Your task to perform on an android device: Go to CNN.com Image 0: 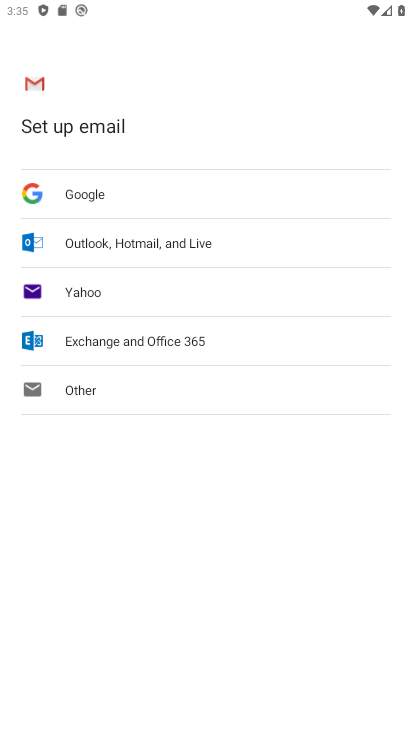
Step 0: press home button
Your task to perform on an android device: Go to CNN.com Image 1: 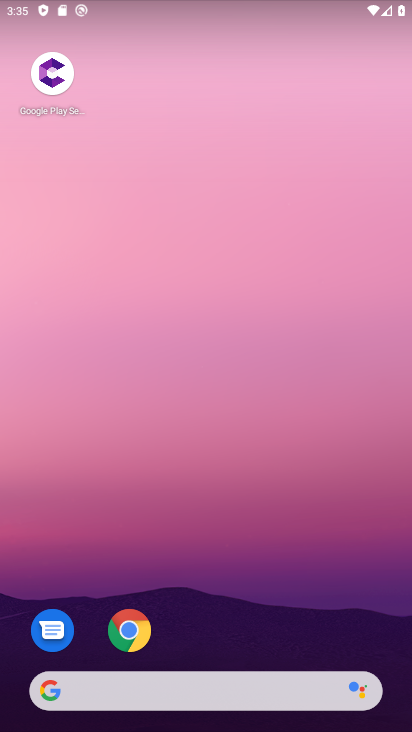
Step 1: drag from (329, 589) to (335, 92)
Your task to perform on an android device: Go to CNN.com Image 2: 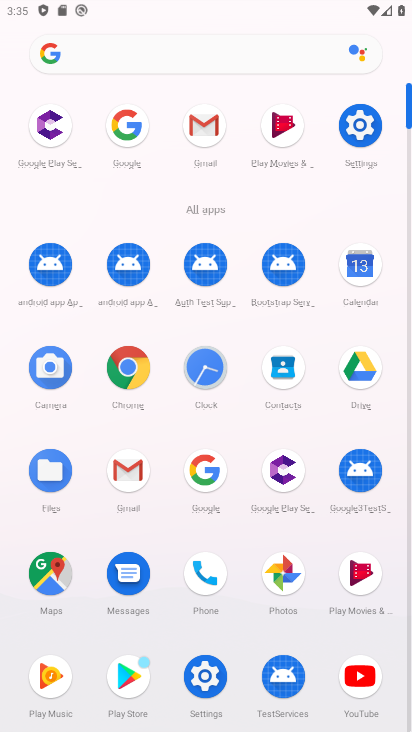
Step 2: click (127, 365)
Your task to perform on an android device: Go to CNN.com Image 3: 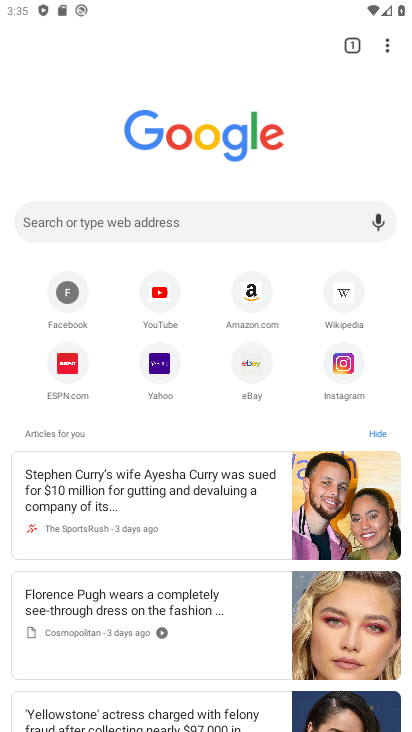
Step 3: click (170, 212)
Your task to perform on an android device: Go to CNN.com Image 4: 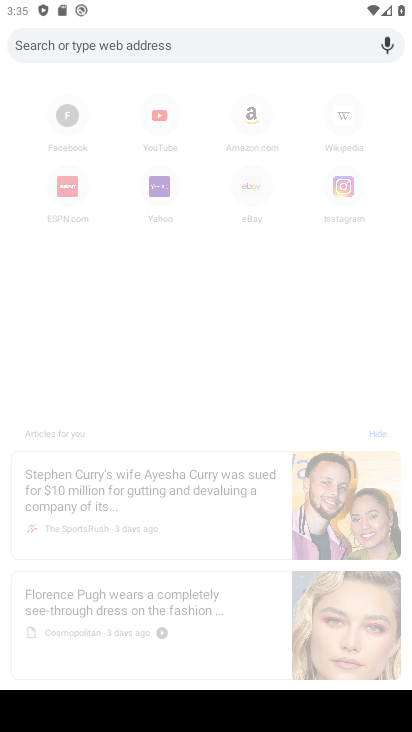
Step 4: type "CNN.com"
Your task to perform on an android device: Go to CNN.com Image 5: 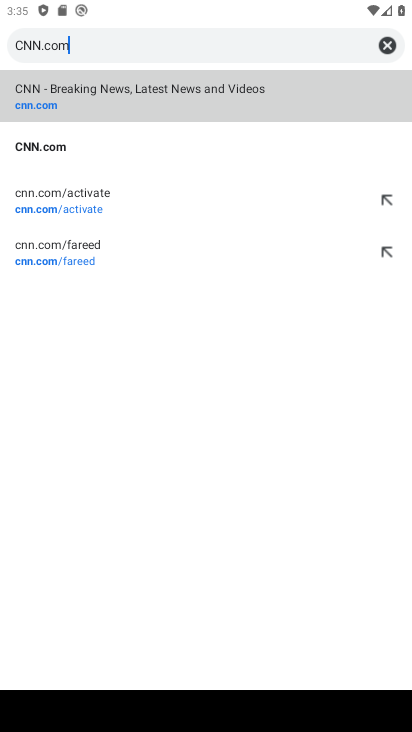
Step 5: click (54, 146)
Your task to perform on an android device: Go to CNN.com Image 6: 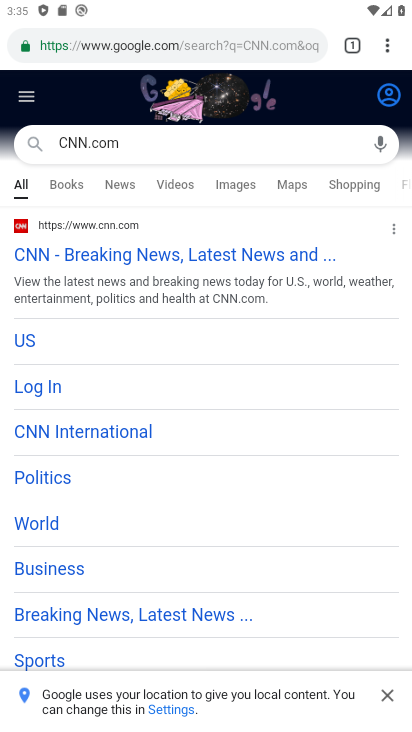
Step 6: click (69, 261)
Your task to perform on an android device: Go to CNN.com Image 7: 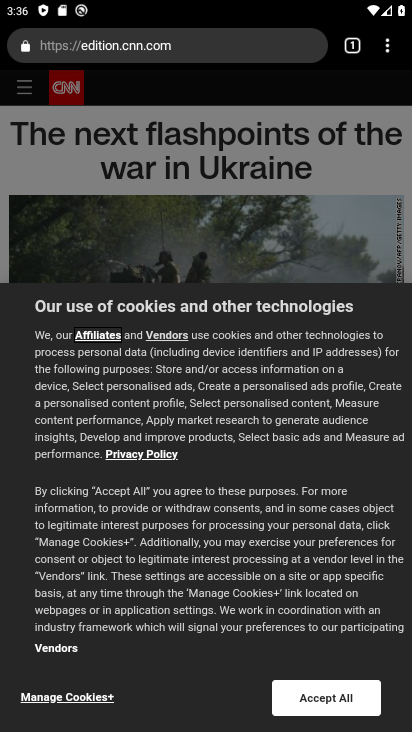
Step 7: task complete